Your task to perform on an android device: toggle airplane mode Image 0: 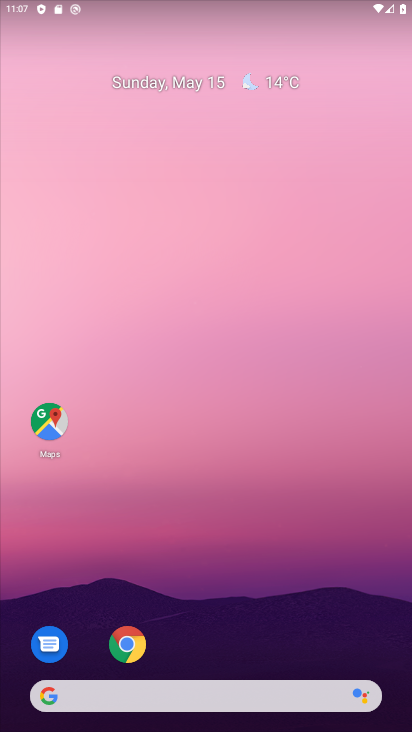
Step 0: click (123, 644)
Your task to perform on an android device: toggle airplane mode Image 1: 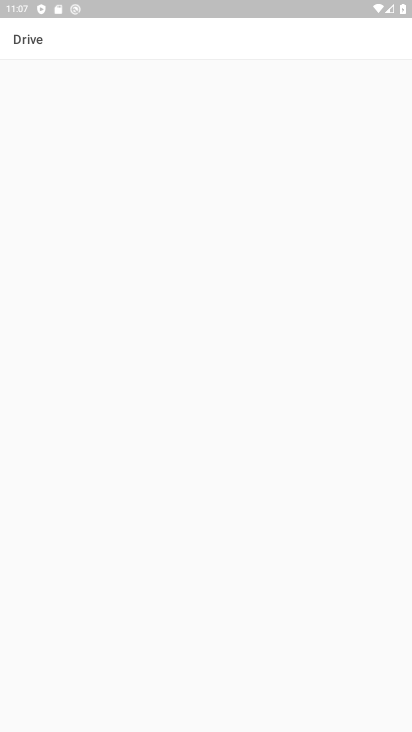
Step 1: press home button
Your task to perform on an android device: toggle airplane mode Image 2: 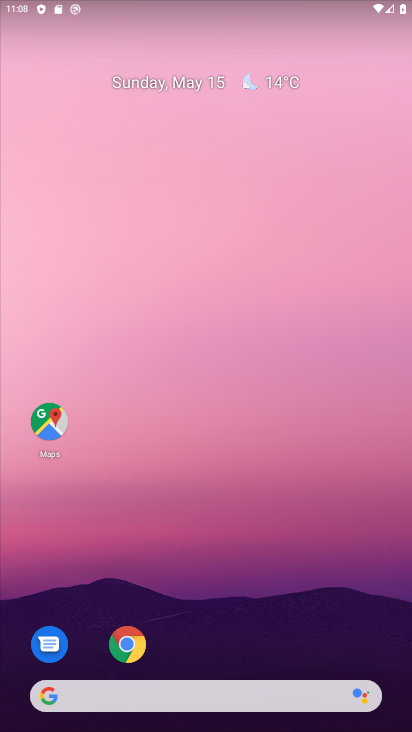
Step 2: drag from (164, 626) to (60, 73)
Your task to perform on an android device: toggle airplane mode Image 3: 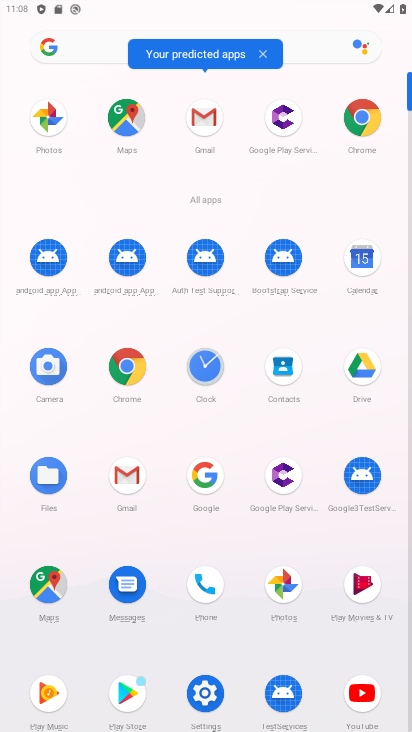
Step 3: click (209, 681)
Your task to perform on an android device: toggle airplane mode Image 4: 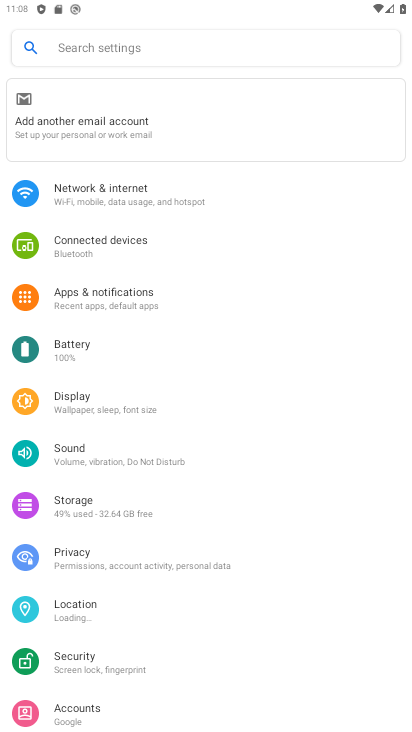
Step 4: click (149, 204)
Your task to perform on an android device: toggle airplane mode Image 5: 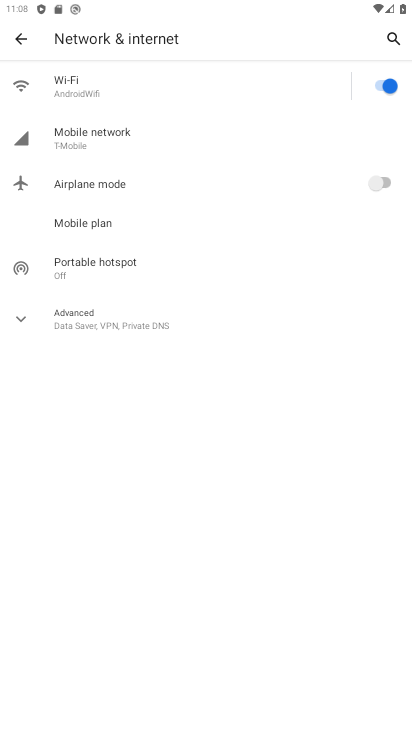
Step 5: click (377, 185)
Your task to perform on an android device: toggle airplane mode Image 6: 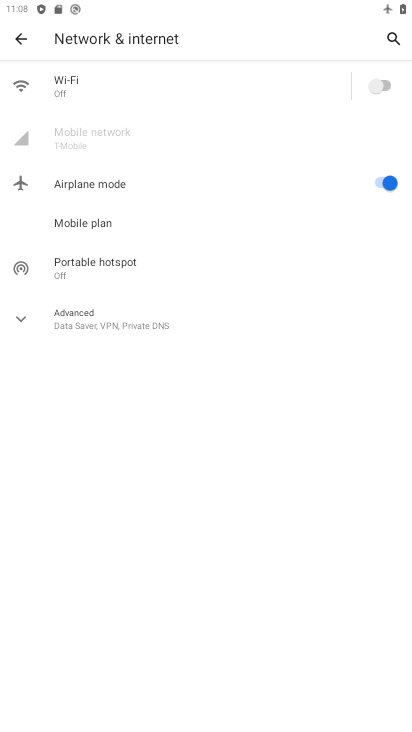
Step 6: task complete